Your task to perform on an android device: Open the calendar and show me this week's events? Image 0: 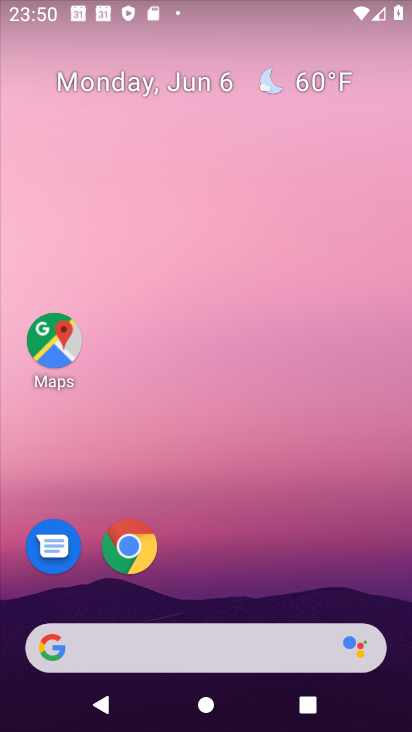
Step 0: drag from (226, 679) to (148, 66)
Your task to perform on an android device: Open the calendar and show me this week's events? Image 1: 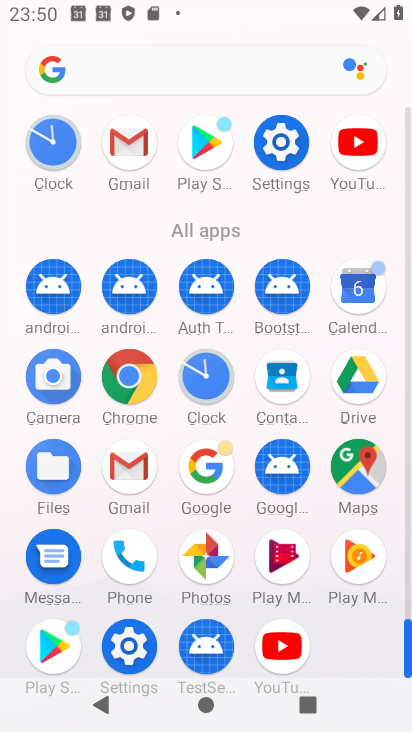
Step 1: click (363, 298)
Your task to perform on an android device: Open the calendar and show me this week's events? Image 2: 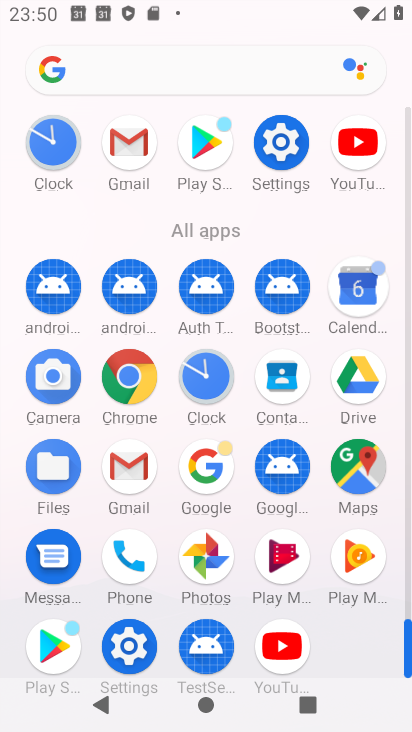
Step 2: click (362, 298)
Your task to perform on an android device: Open the calendar and show me this week's events? Image 3: 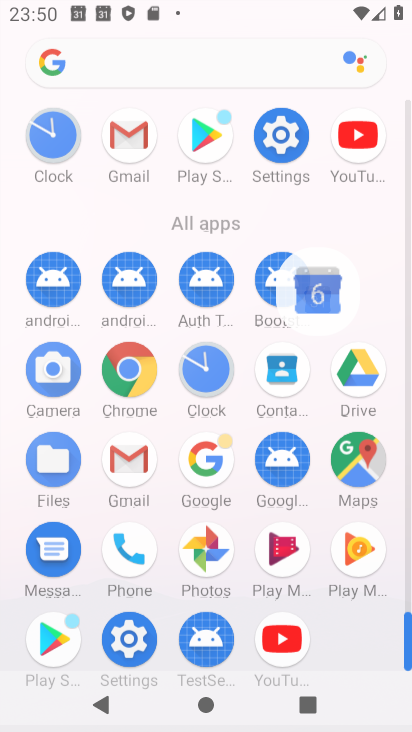
Step 3: click (362, 297)
Your task to perform on an android device: Open the calendar and show me this week's events? Image 4: 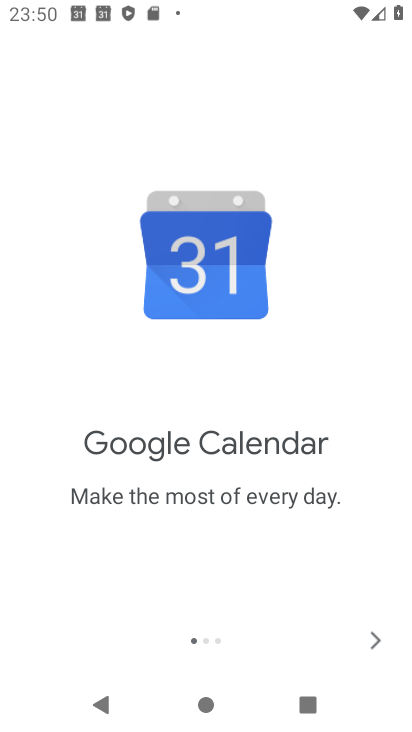
Step 4: click (361, 297)
Your task to perform on an android device: Open the calendar and show me this week's events? Image 5: 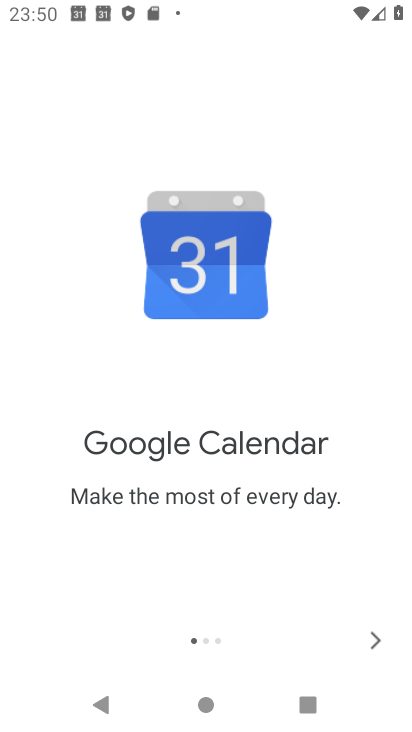
Step 5: click (382, 646)
Your task to perform on an android device: Open the calendar and show me this week's events? Image 6: 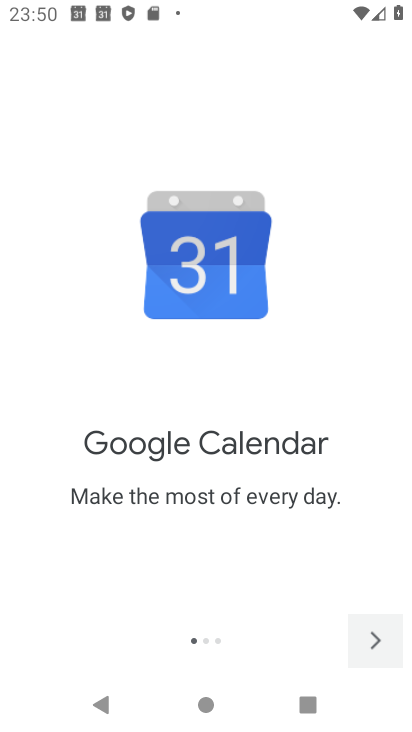
Step 6: click (382, 646)
Your task to perform on an android device: Open the calendar and show me this week's events? Image 7: 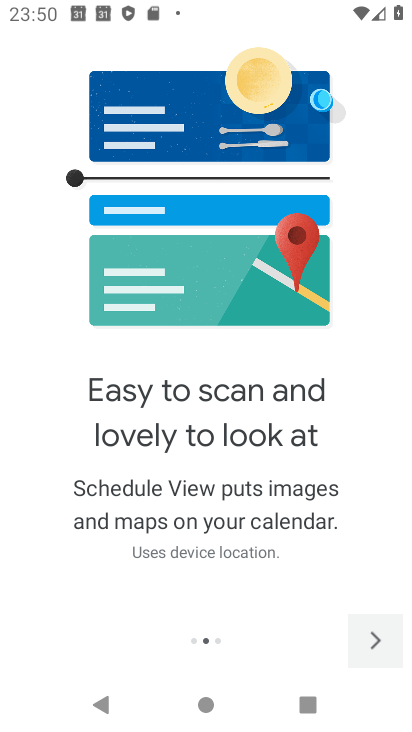
Step 7: click (370, 648)
Your task to perform on an android device: Open the calendar and show me this week's events? Image 8: 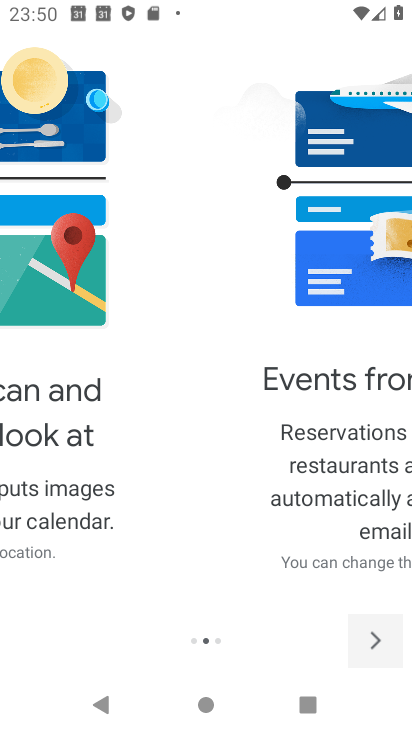
Step 8: click (370, 648)
Your task to perform on an android device: Open the calendar and show me this week's events? Image 9: 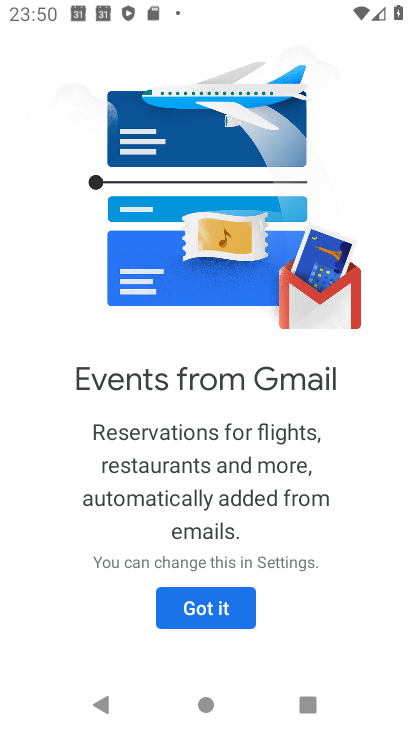
Step 9: click (238, 610)
Your task to perform on an android device: Open the calendar and show me this week's events? Image 10: 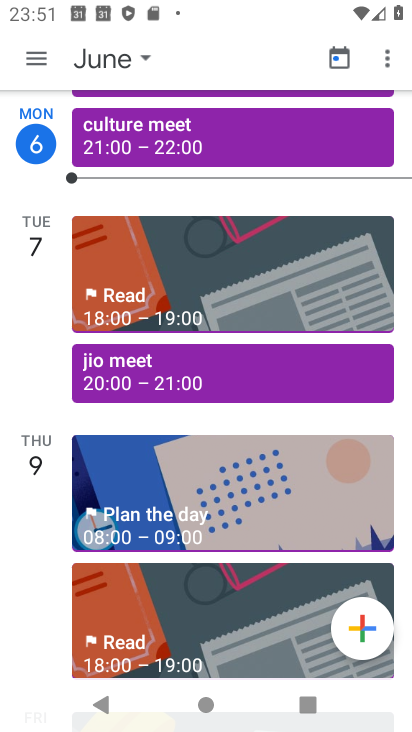
Step 10: click (141, 57)
Your task to perform on an android device: Open the calendar and show me this week's events? Image 11: 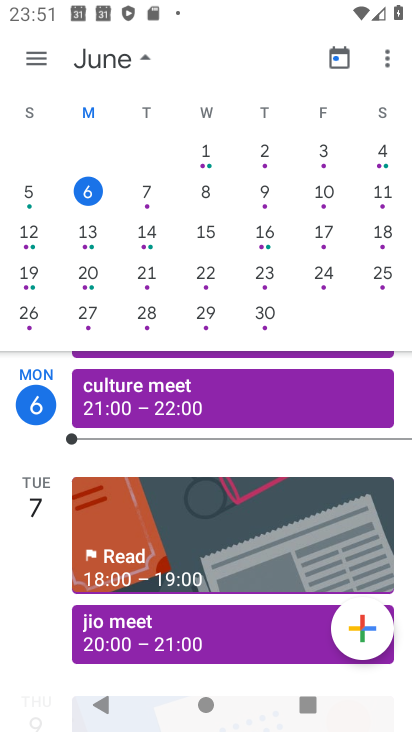
Step 11: click (327, 187)
Your task to perform on an android device: Open the calendar and show me this week's events? Image 12: 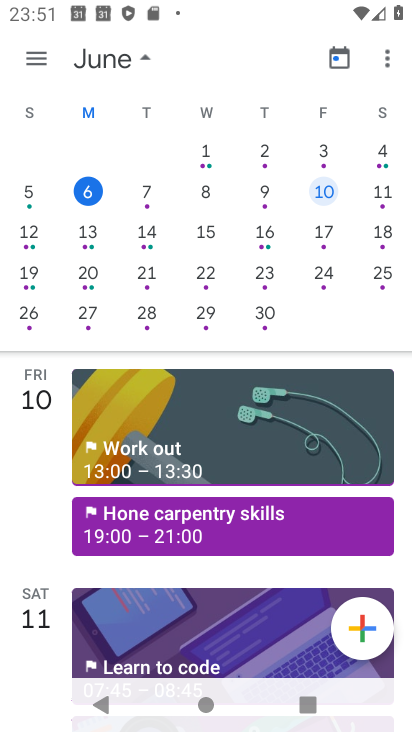
Step 12: click (318, 197)
Your task to perform on an android device: Open the calendar and show me this week's events? Image 13: 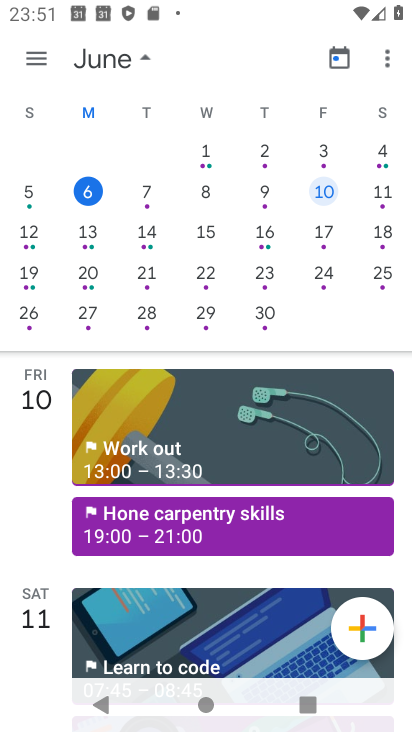
Step 13: click (318, 197)
Your task to perform on an android device: Open the calendar and show me this week's events? Image 14: 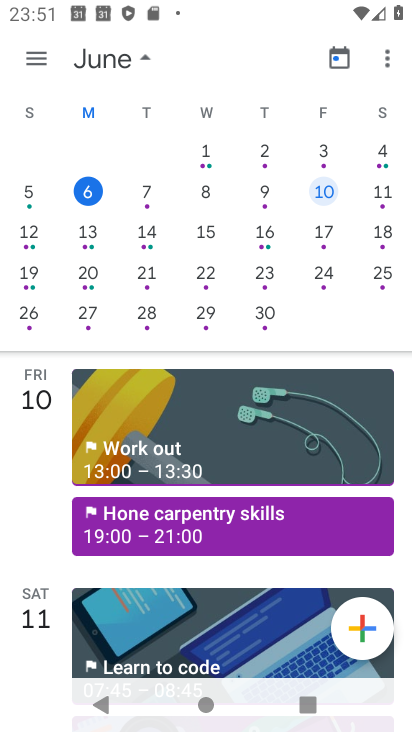
Step 14: click (319, 196)
Your task to perform on an android device: Open the calendar and show me this week's events? Image 15: 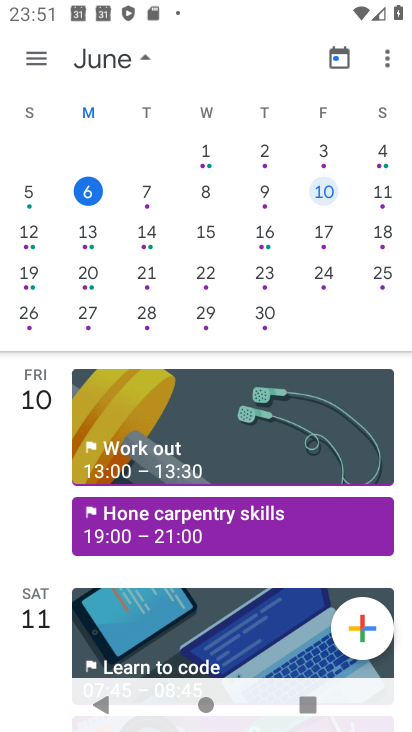
Step 15: click (319, 196)
Your task to perform on an android device: Open the calendar and show me this week's events? Image 16: 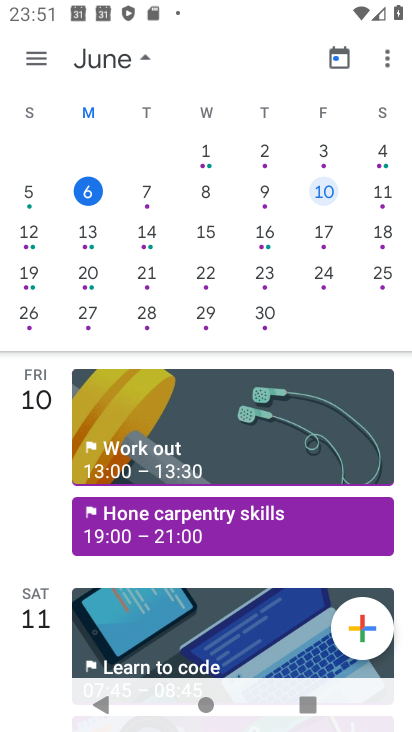
Step 16: task complete